Your task to perform on an android device: open the mobile data screen to see how much data has been used Image 0: 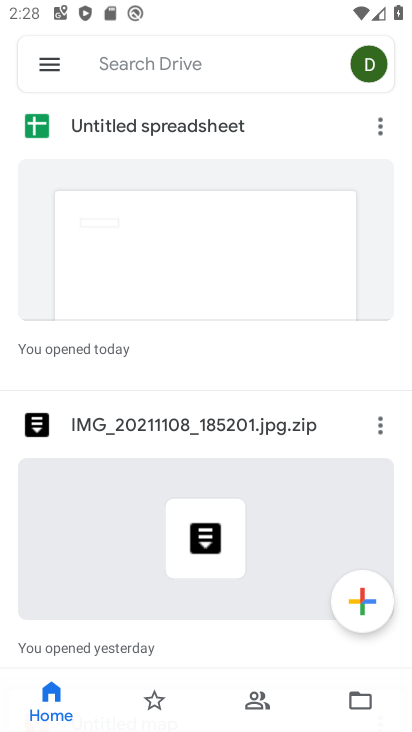
Step 0: press home button
Your task to perform on an android device: open the mobile data screen to see how much data has been used Image 1: 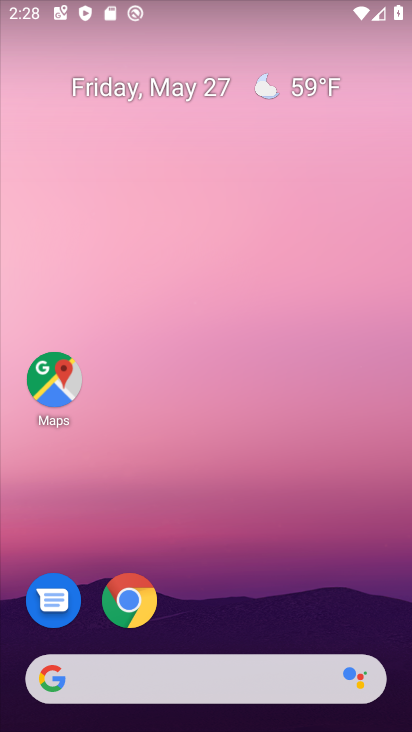
Step 1: drag from (242, 557) to (232, 73)
Your task to perform on an android device: open the mobile data screen to see how much data has been used Image 2: 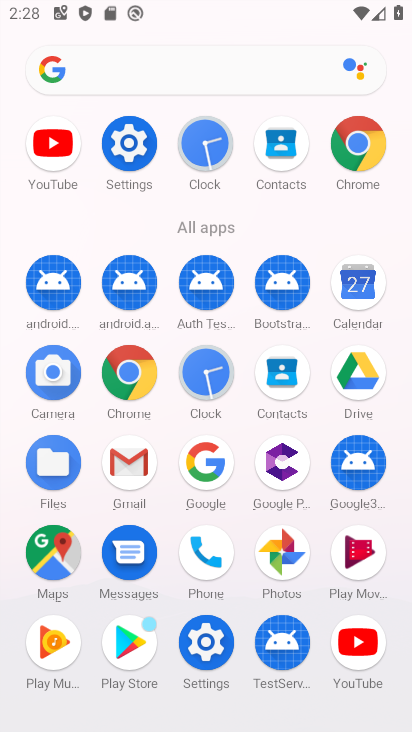
Step 2: click (129, 142)
Your task to perform on an android device: open the mobile data screen to see how much data has been used Image 3: 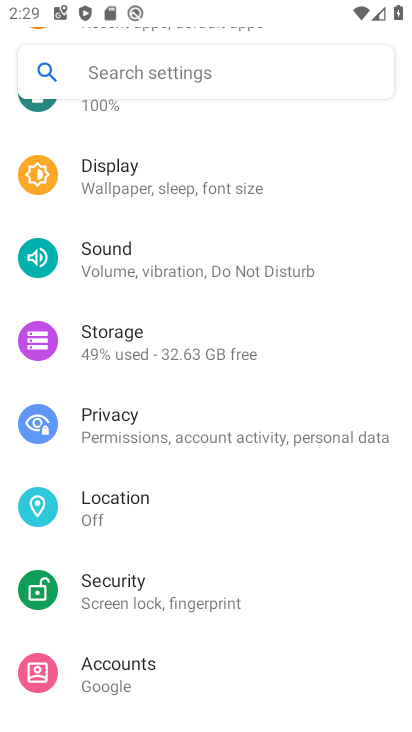
Step 3: drag from (159, 164) to (191, 307)
Your task to perform on an android device: open the mobile data screen to see how much data has been used Image 4: 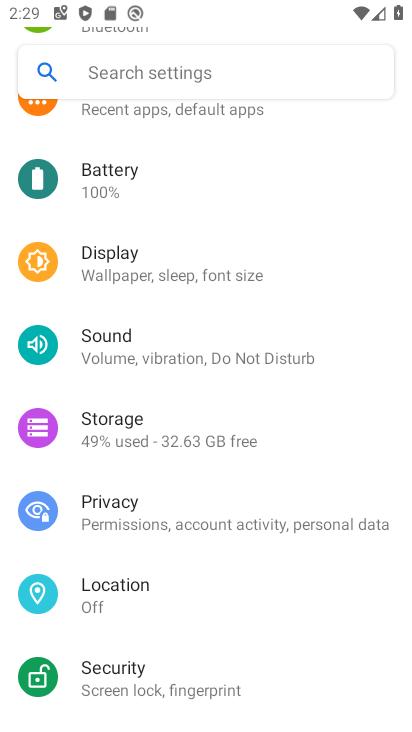
Step 4: drag from (195, 176) to (219, 295)
Your task to perform on an android device: open the mobile data screen to see how much data has been used Image 5: 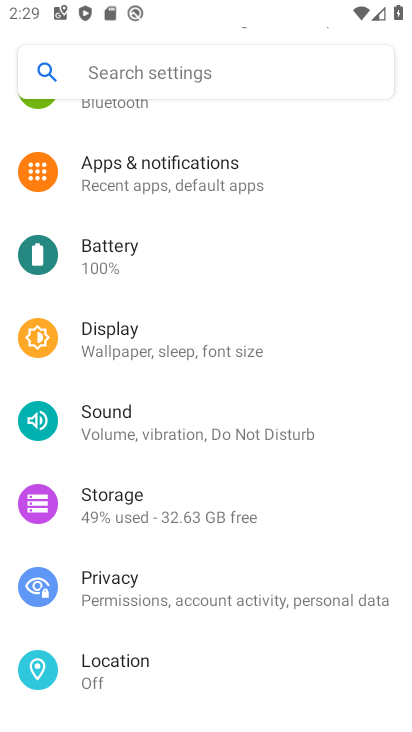
Step 5: drag from (178, 130) to (197, 328)
Your task to perform on an android device: open the mobile data screen to see how much data has been used Image 6: 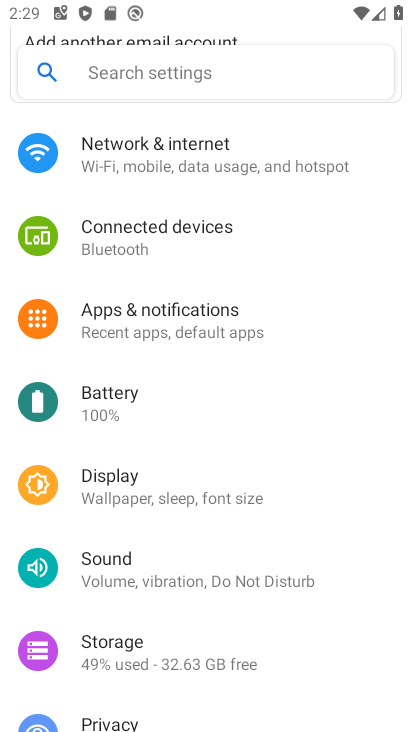
Step 6: drag from (189, 191) to (206, 349)
Your task to perform on an android device: open the mobile data screen to see how much data has been used Image 7: 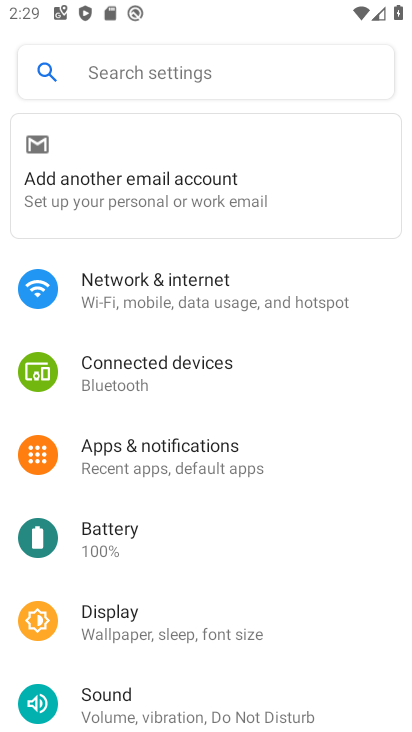
Step 7: click (198, 305)
Your task to perform on an android device: open the mobile data screen to see how much data has been used Image 8: 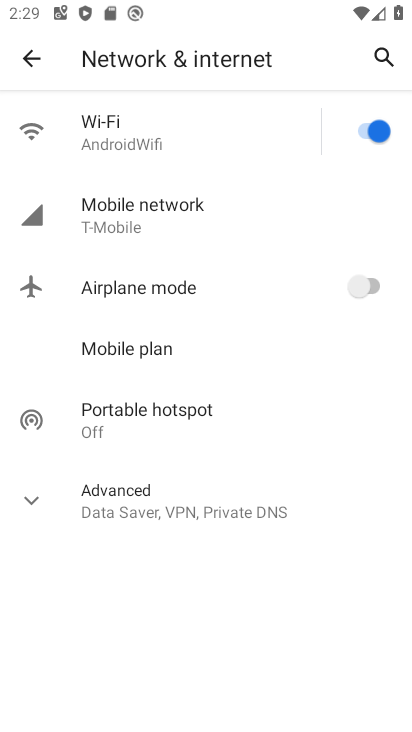
Step 8: click (124, 203)
Your task to perform on an android device: open the mobile data screen to see how much data has been used Image 9: 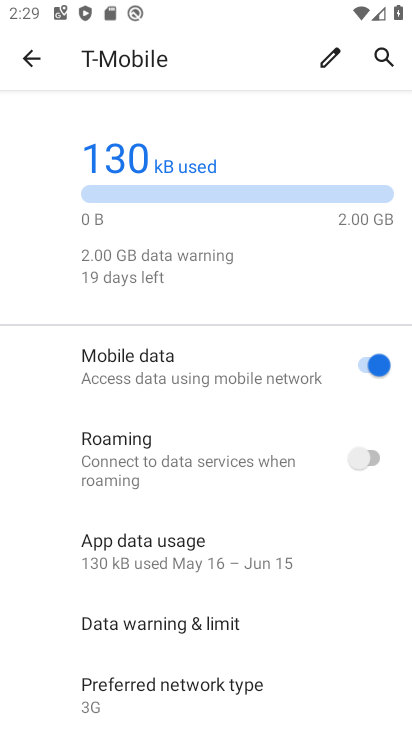
Step 9: task complete